Your task to perform on an android device: delete a single message in the gmail app Image 0: 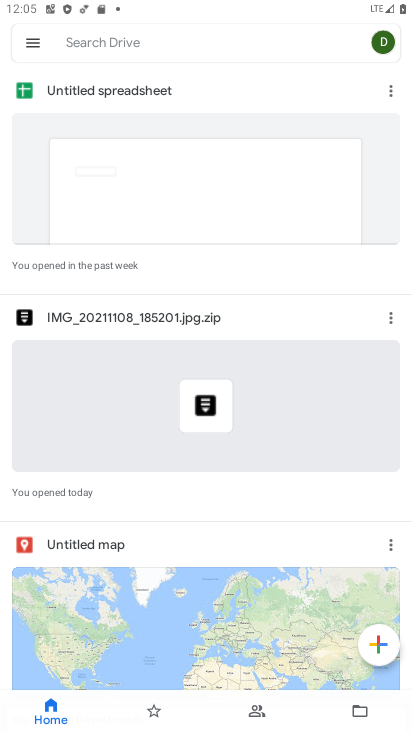
Step 0: press home button
Your task to perform on an android device: delete a single message in the gmail app Image 1: 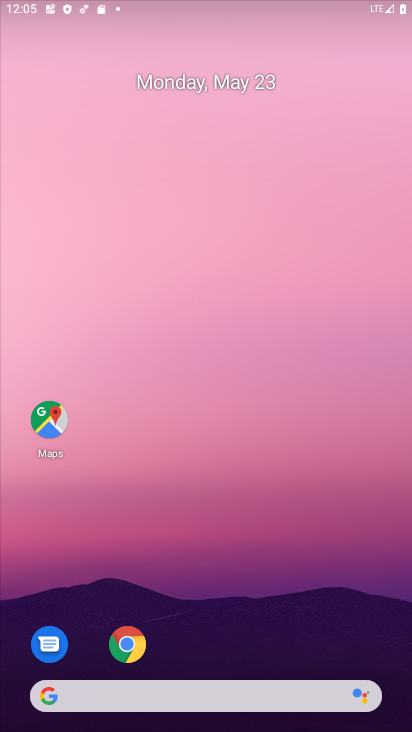
Step 1: drag from (376, 620) to (285, 63)
Your task to perform on an android device: delete a single message in the gmail app Image 2: 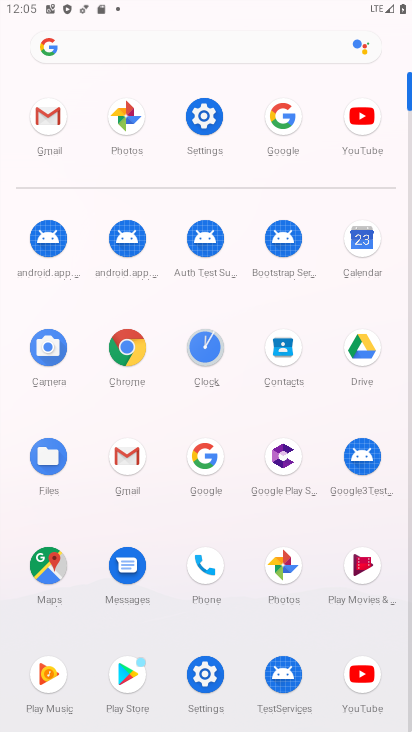
Step 2: click (118, 447)
Your task to perform on an android device: delete a single message in the gmail app Image 3: 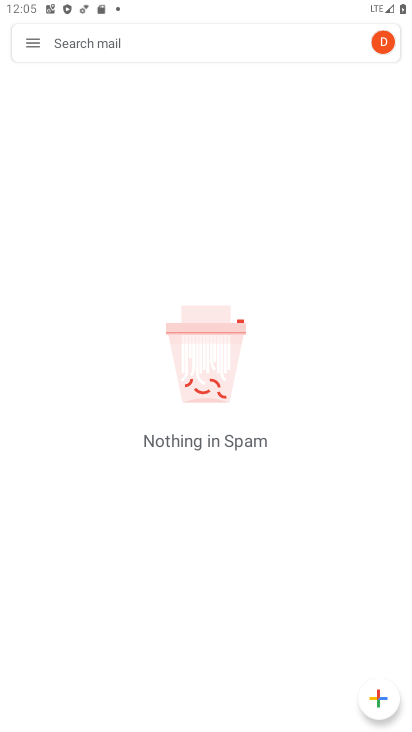
Step 3: task complete